Your task to perform on an android device: change alarm snooze length Image 0: 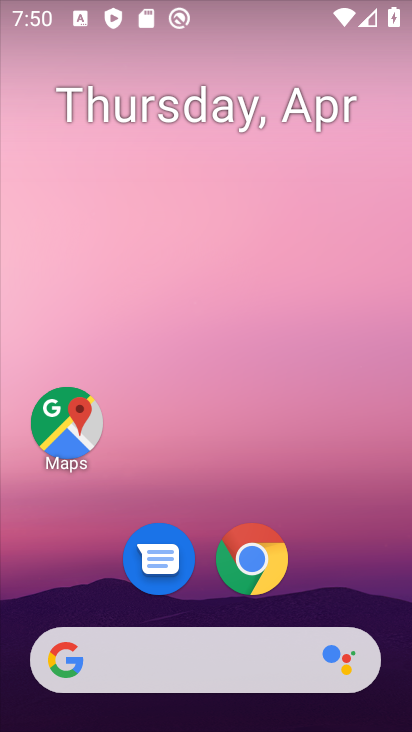
Step 0: drag from (253, 712) to (271, 61)
Your task to perform on an android device: change alarm snooze length Image 1: 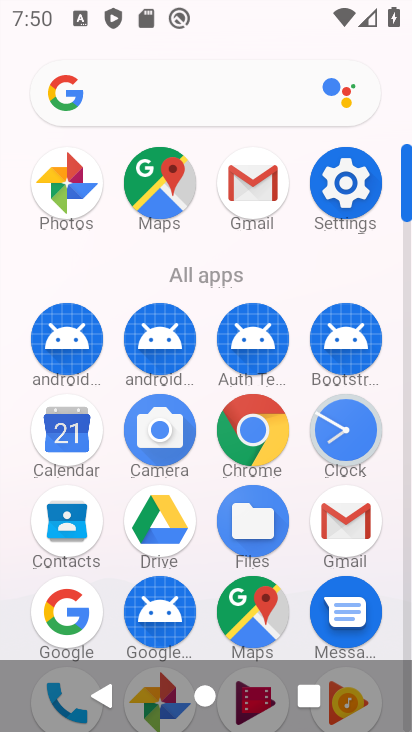
Step 1: click (366, 439)
Your task to perform on an android device: change alarm snooze length Image 2: 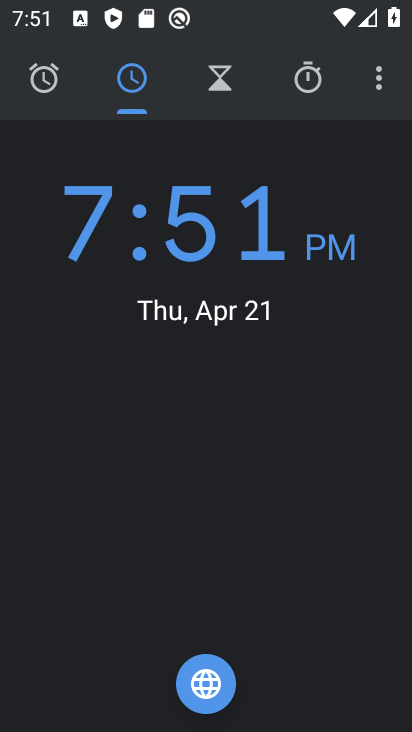
Step 2: click (378, 80)
Your task to perform on an android device: change alarm snooze length Image 3: 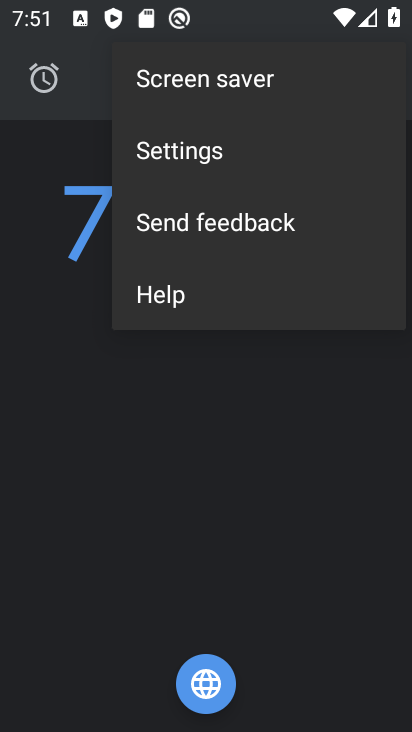
Step 3: click (222, 168)
Your task to perform on an android device: change alarm snooze length Image 4: 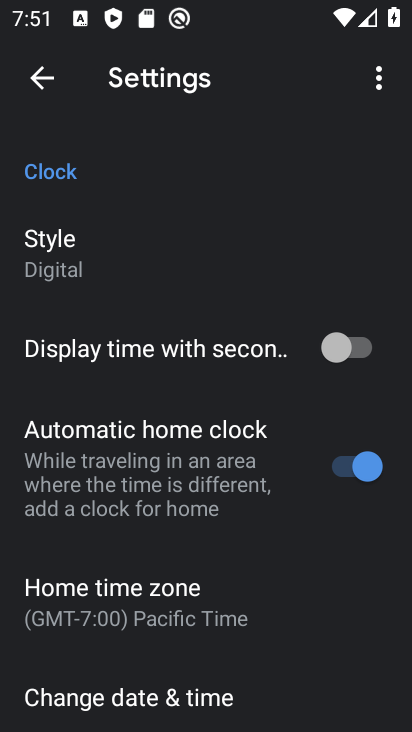
Step 4: drag from (260, 646) to (188, 9)
Your task to perform on an android device: change alarm snooze length Image 5: 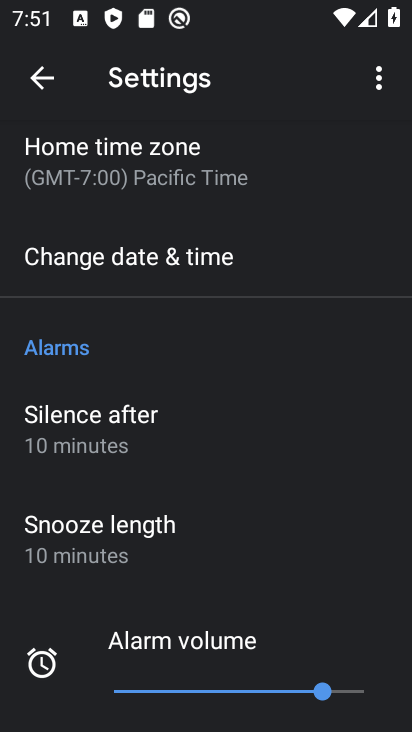
Step 5: click (130, 534)
Your task to perform on an android device: change alarm snooze length Image 6: 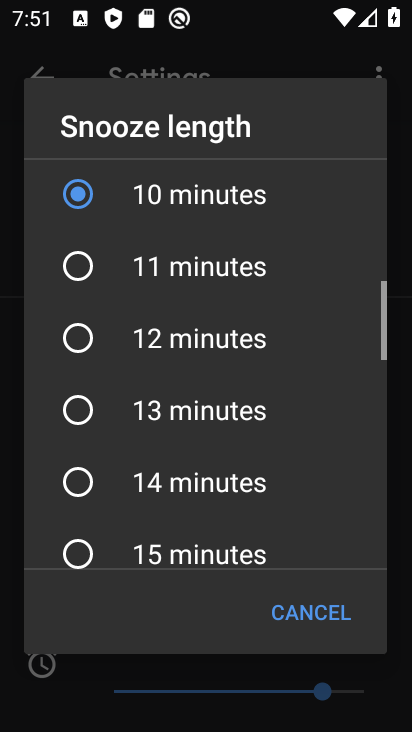
Step 6: click (202, 425)
Your task to perform on an android device: change alarm snooze length Image 7: 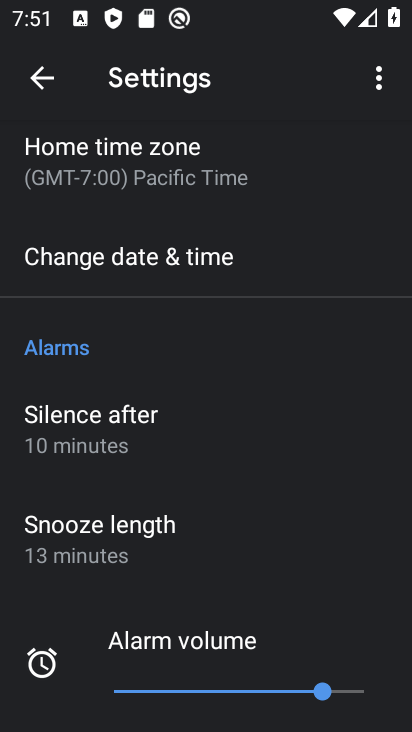
Step 7: task complete